Your task to perform on an android device: What's the weather going to be tomorrow? Image 0: 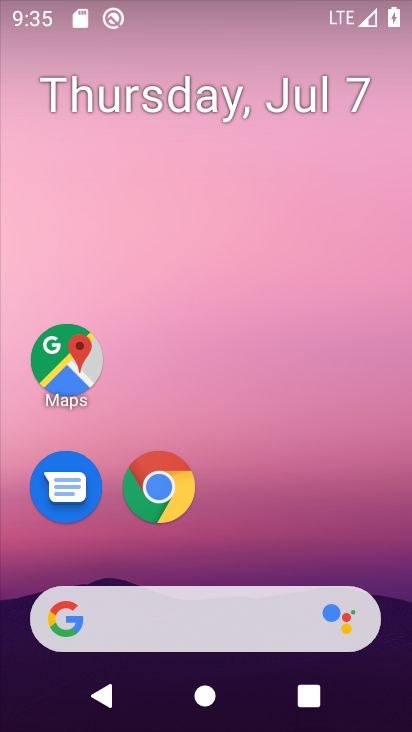
Step 0: click (264, 608)
Your task to perform on an android device: What's the weather going to be tomorrow? Image 1: 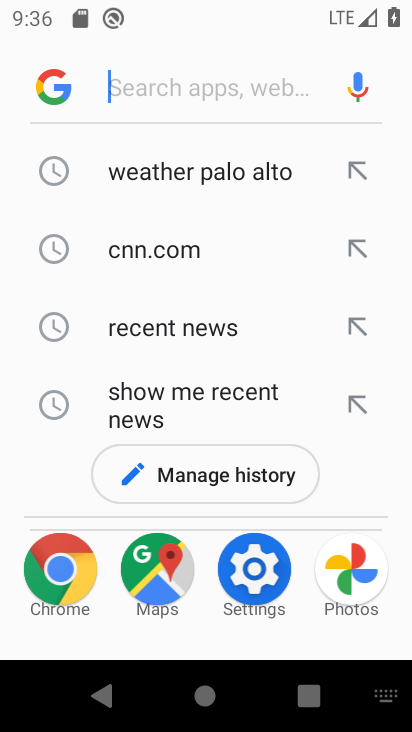
Step 1: type "weather"
Your task to perform on an android device: What's the weather going to be tomorrow? Image 2: 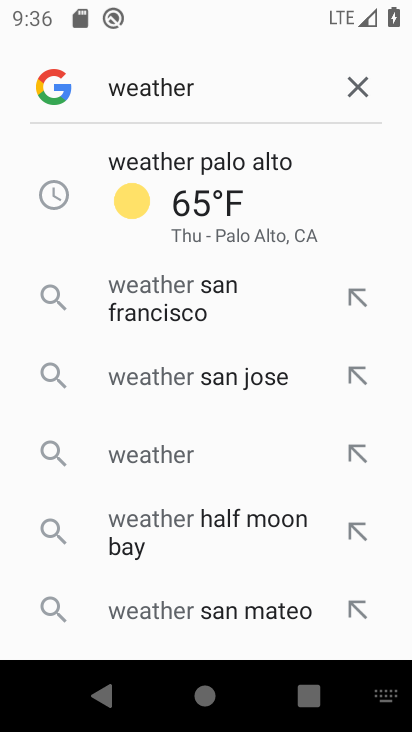
Step 2: click (211, 183)
Your task to perform on an android device: What's the weather going to be tomorrow? Image 3: 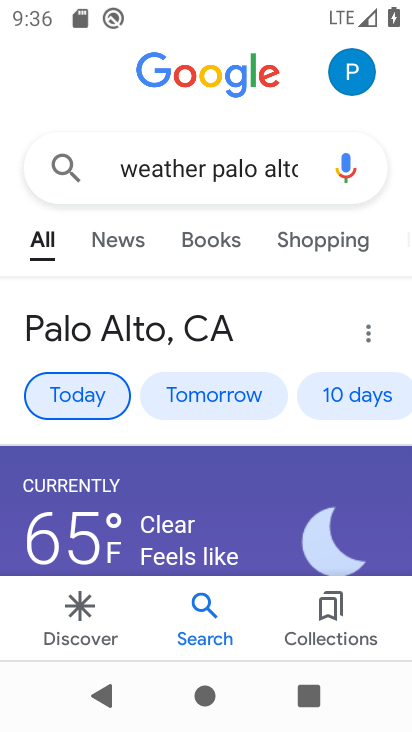
Step 3: click (230, 400)
Your task to perform on an android device: What's the weather going to be tomorrow? Image 4: 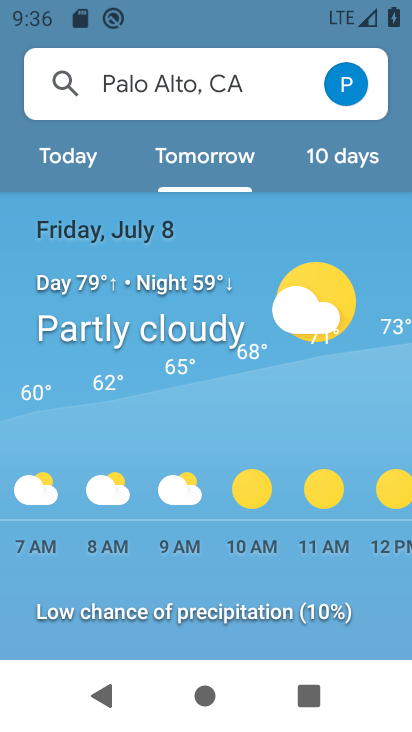
Step 4: task complete